Your task to perform on an android device: make emails show in primary in the gmail app Image 0: 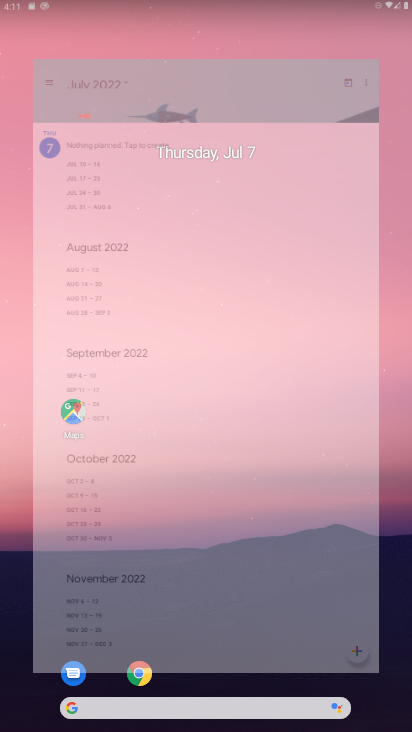
Step 0: press home button
Your task to perform on an android device: make emails show in primary in the gmail app Image 1: 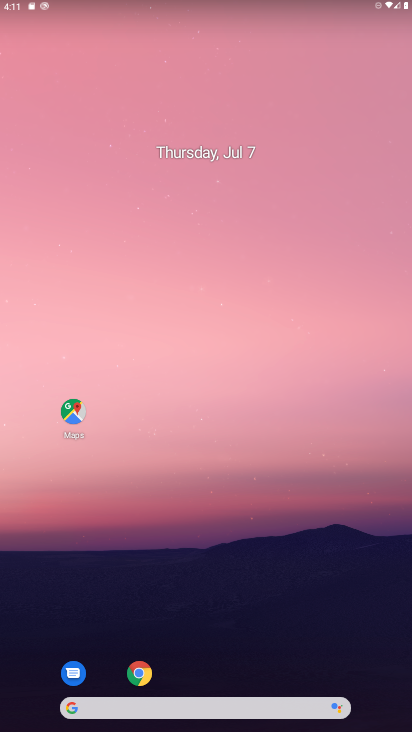
Step 1: drag from (208, 671) to (221, 21)
Your task to perform on an android device: make emails show in primary in the gmail app Image 2: 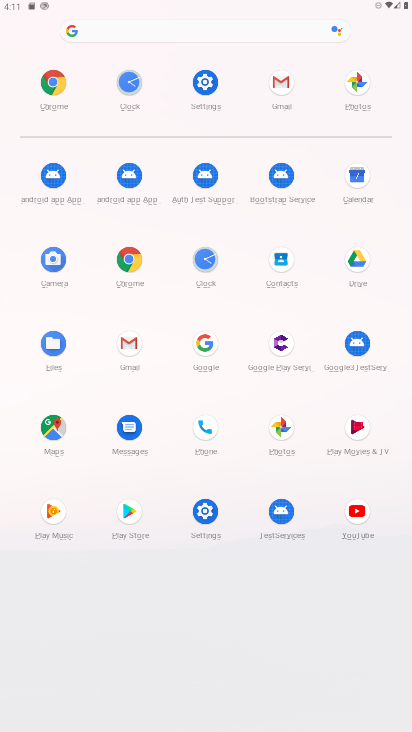
Step 2: click (124, 336)
Your task to perform on an android device: make emails show in primary in the gmail app Image 3: 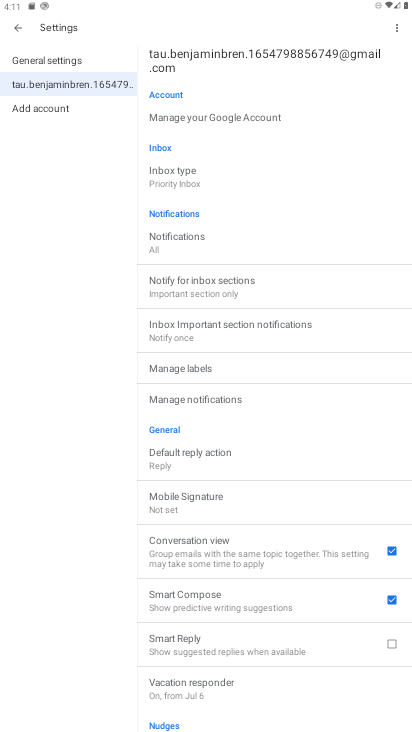
Step 3: click (179, 176)
Your task to perform on an android device: make emails show in primary in the gmail app Image 4: 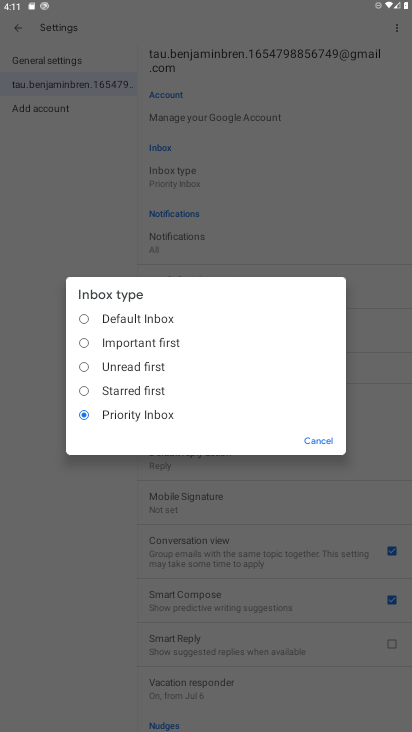
Step 4: click (82, 314)
Your task to perform on an android device: make emails show in primary in the gmail app Image 5: 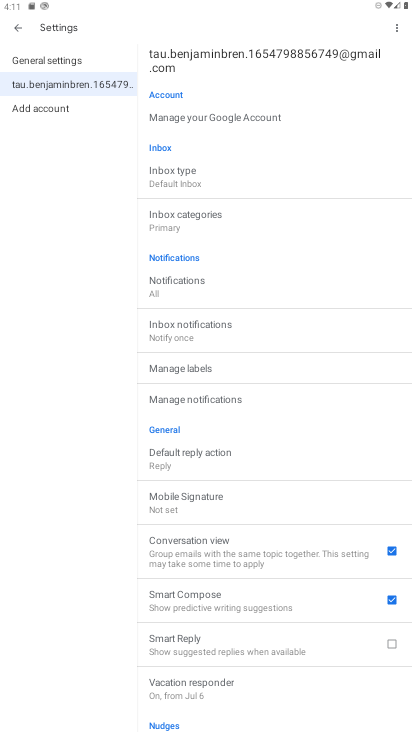
Step 5: task complete